Your task to perform on an android device: change alarm snooze length Image 0: 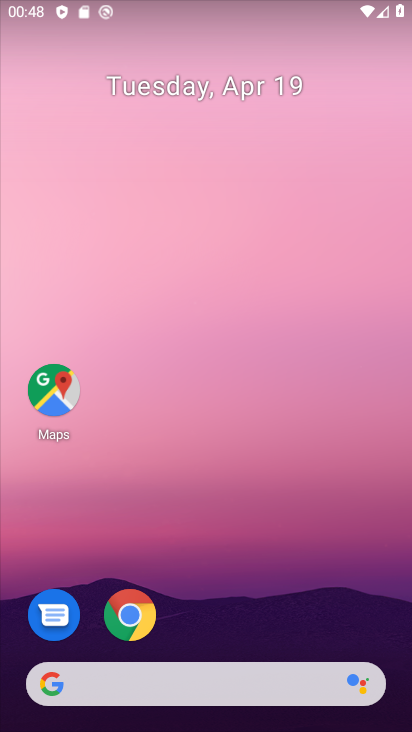
Step 0: drag from (274, 532) to (284, 82)
Your task to perform on an android device: change alarm snooze length Image 1: 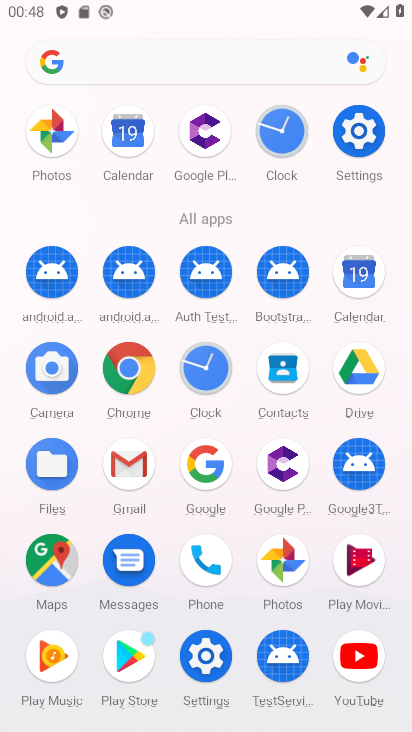
Step 1: click (201, 369)
Your task to perform on an android device: change alarm snooze length Image 2: 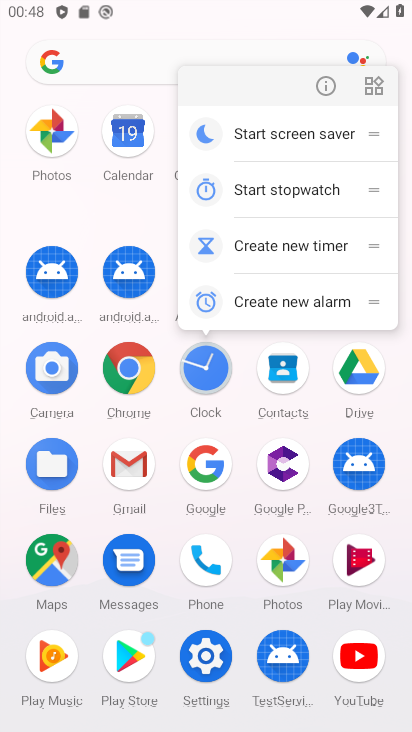
Step 2: click (202, 368)
Your task to perform on an android device: change alarm snooze length Image 3: 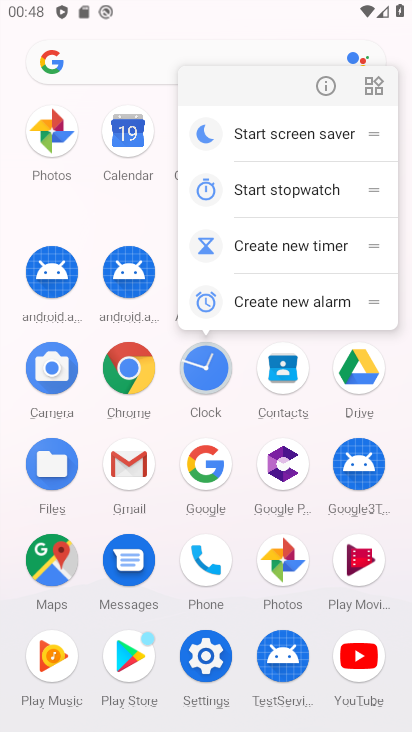
Step 3: click (208, 381)
Your task to perform on an android device: change alarm snooze length Image 4: 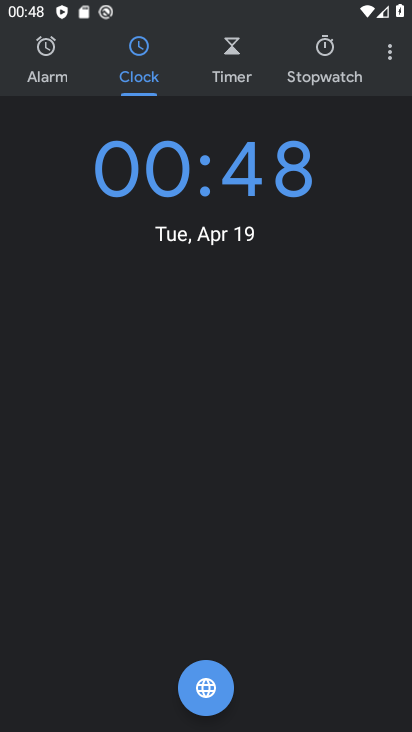
Step 4: click (389, 58)
Your task to perform on an android device: change alarm snooze length Image 5: 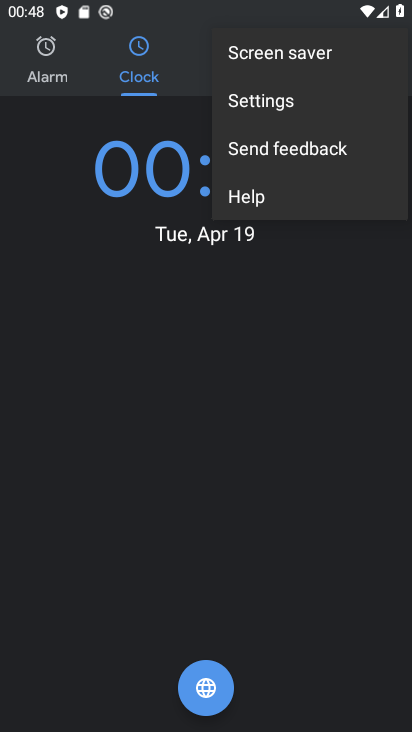
Step 5: click (301, 104)
Your task to perform on an android device: change alarm snooze length Image 6: 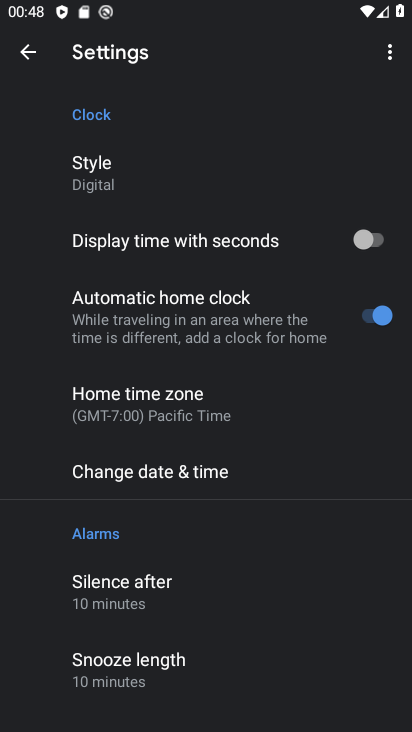
Step 6: click (141, 678)
Your task to perform on an android device: change alarm snooze length Image 7: 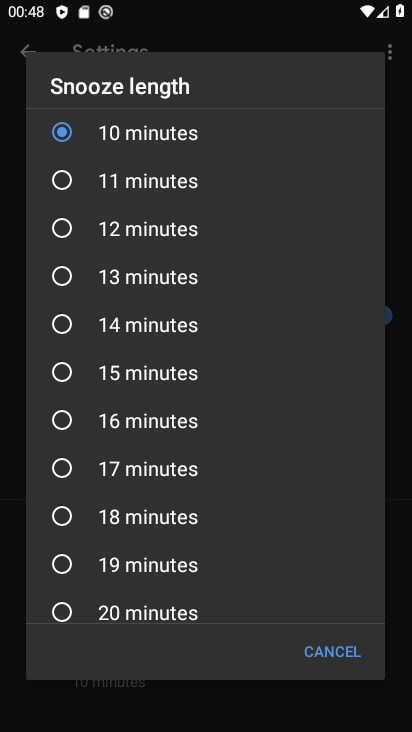
Step 7: click (167, 191)
Your task to perform on an android device: change alarm snooze length Image 8: 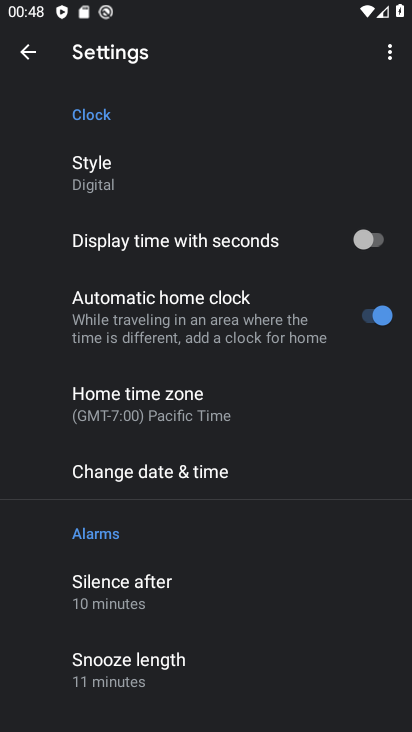
Step 8: task complete